Your task to perform on an android device: refresh tabs in the chrome app Image 0: 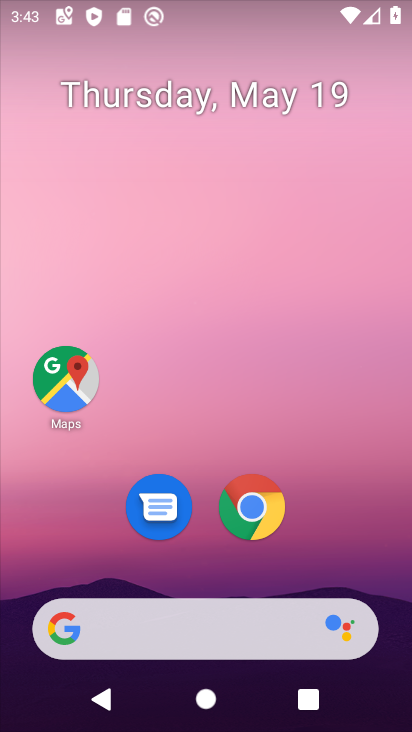
Step 0: click (256, 509)
Your task to perform on an android device: refresh tabs in the chrome app Image 1: 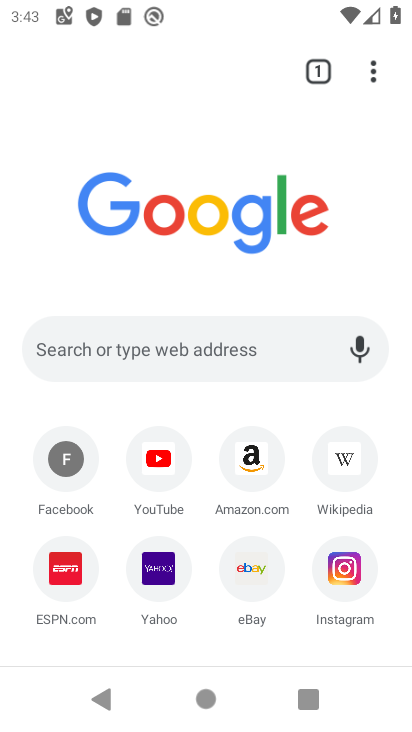
Step 1: click (371, 62)
Your task to perform on an android device: refresh tabs in the chrome app Image 2: 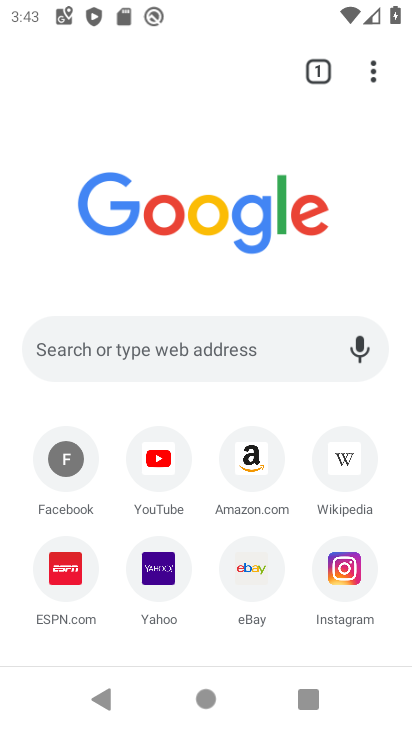
Step 2: click (372, 62)
Your task to perform on an android device: refresh tabs in the chrome app Image 3: 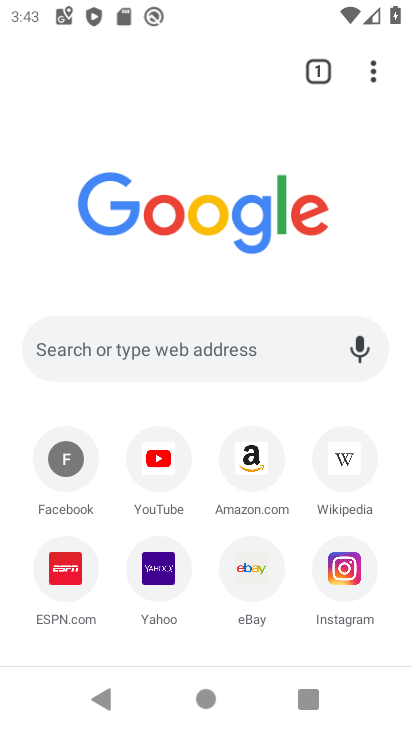
Step 3: click (371, 72)
Your task to perform on an android device: refresh tabs in the chrome app Image 4: 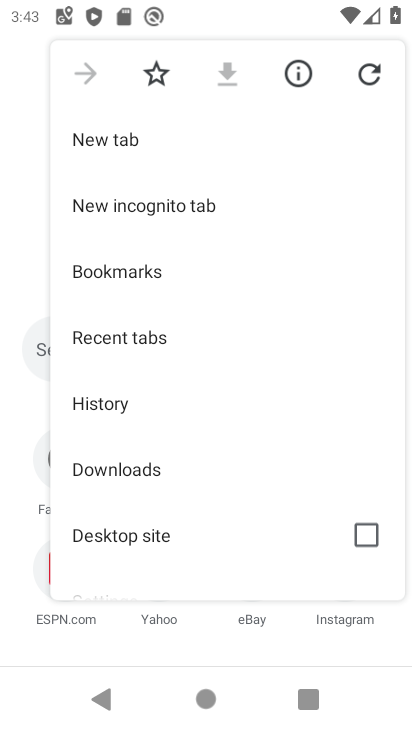
Step 4: click (376, 70)
Your task to perform on an android device: refresh tabs in the chrome app Image 5: 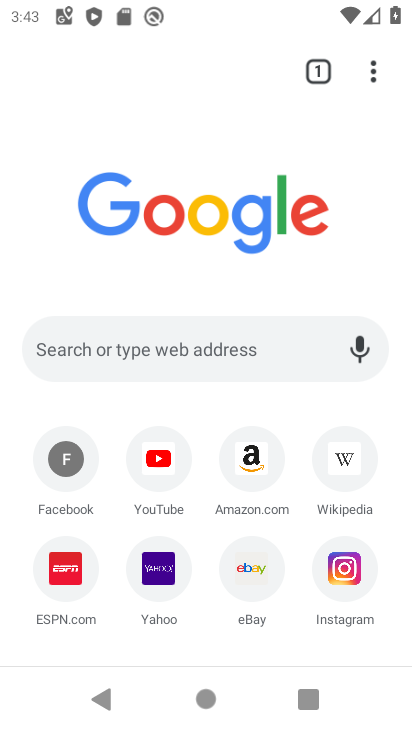
Step 5: task complete